Your task to perform on an android device: open app "Google Translate" (install if not already installed) Image 0: 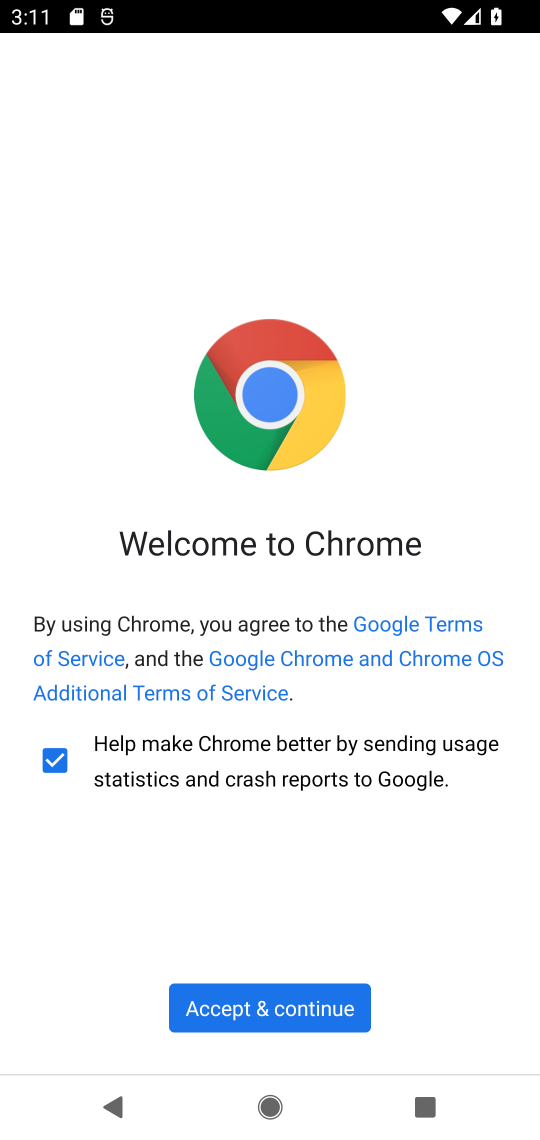
Step 0: press back button
Your task to perform on an android device: open app "Google Translate" (install if not already installed) Image 1: 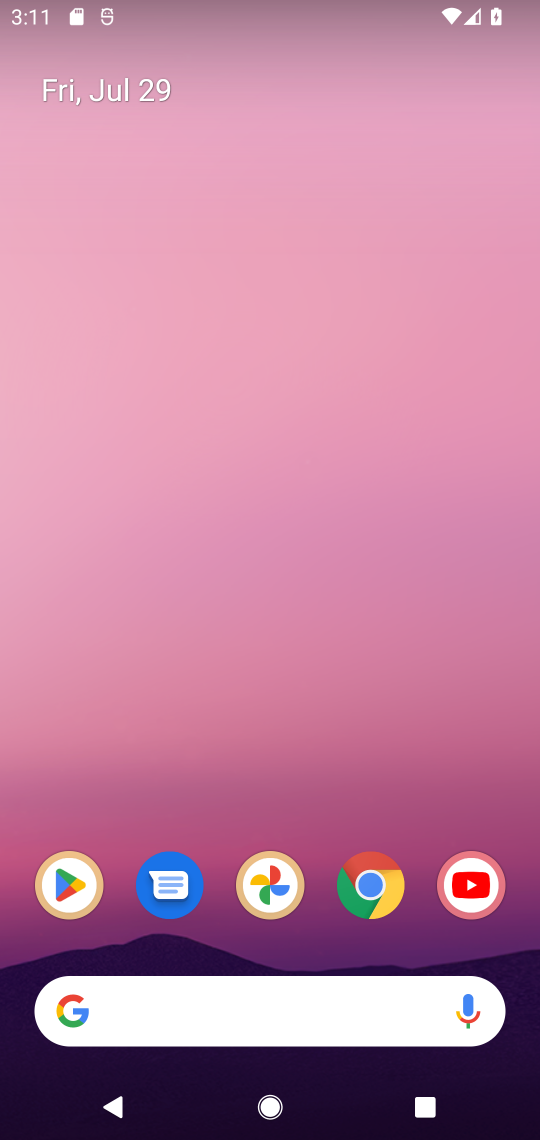
Step 1: click (85, 892)
Your task to perform on an android device: open app "Google Translate" (install if not already installed) Image 2: 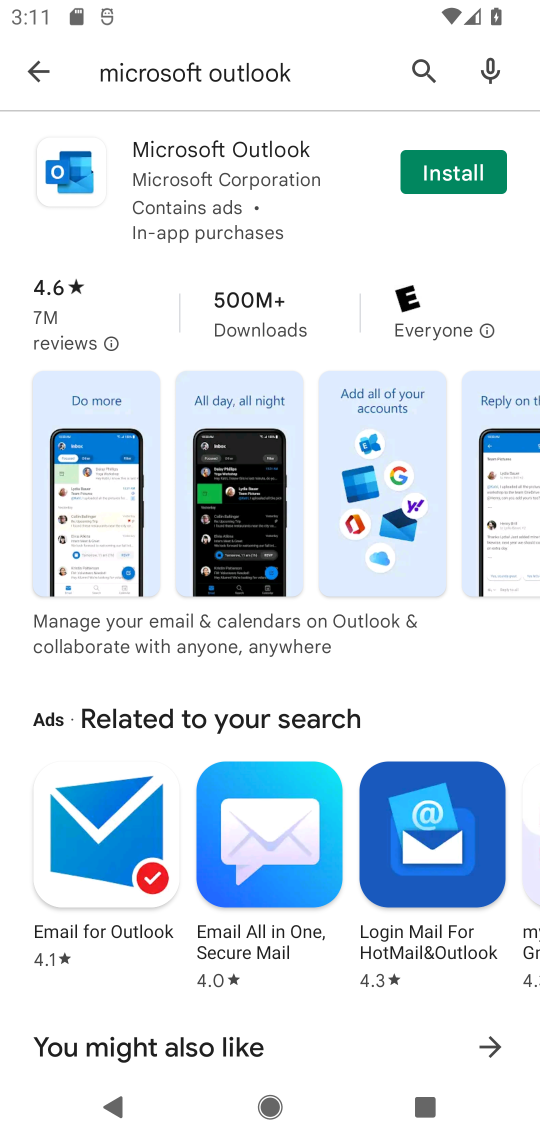
Step 2: click (430, 58)
Your task to perform on an android device: open app "Google Translate" (install if not already installed) Image 3: 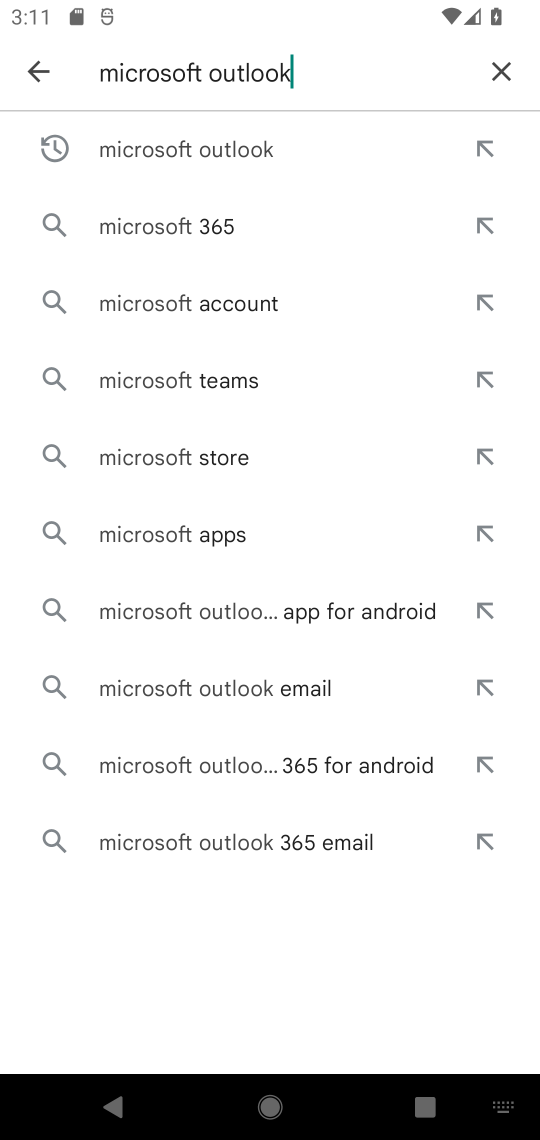
Step 3: click (482, 79)
Your task to perform on an android device: open app "Google Translate" (install if not already installed) Image 4: 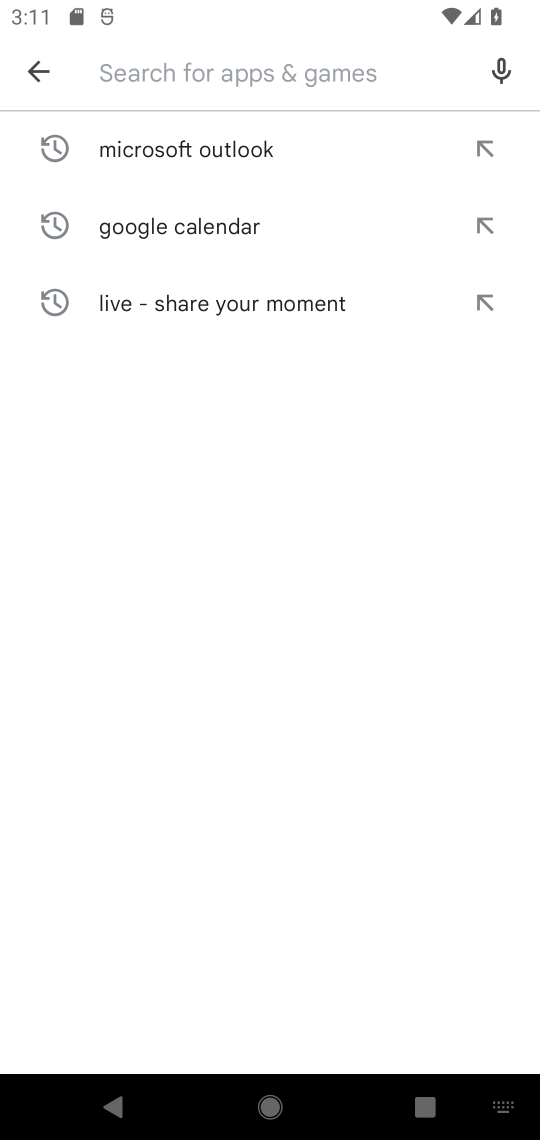
Step 4: click (495, 73)
Your task to perform on an android device: open app "Google Translate" (install if not already installed) Image 5: 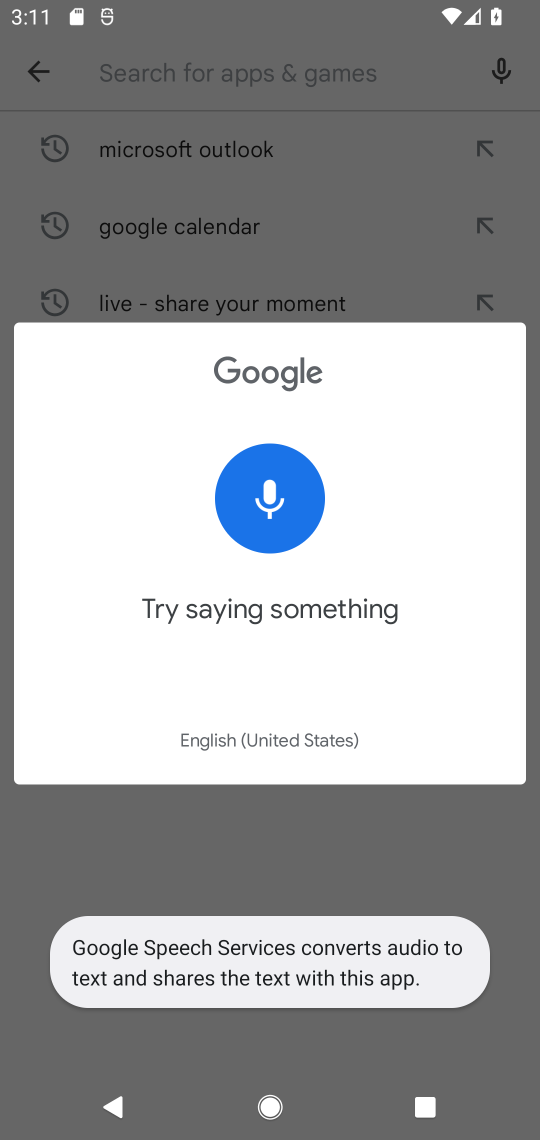
Step 5: click (195, 84)
Your task to perform on an android device: open app "Google Translate" (install if not already installed) Image 6: 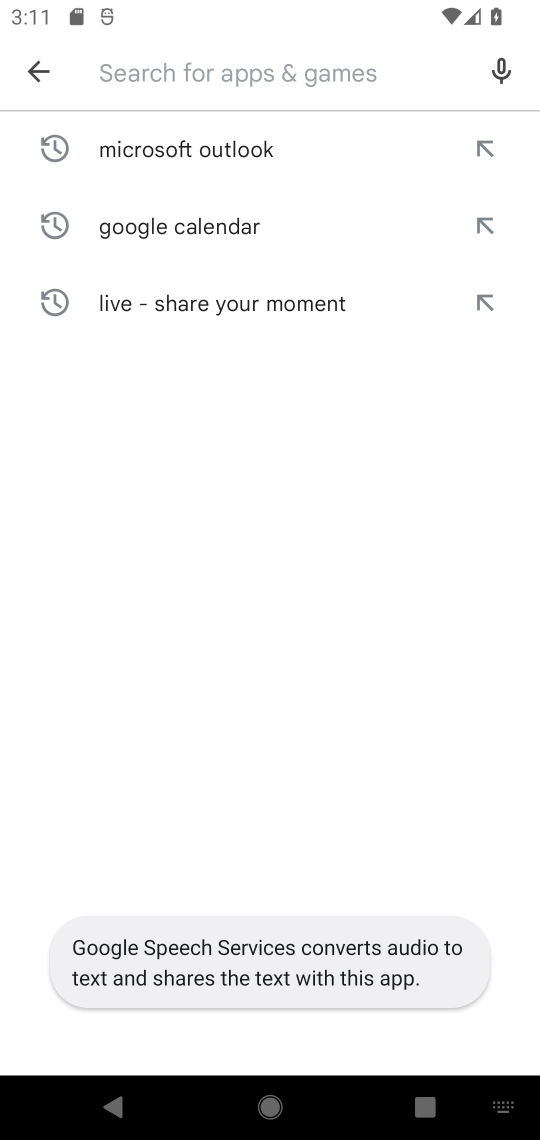
Step 6: click (195, 84)
Your task to perform on an android device: open app "Google Translate" (install if not already installed) Image 7: 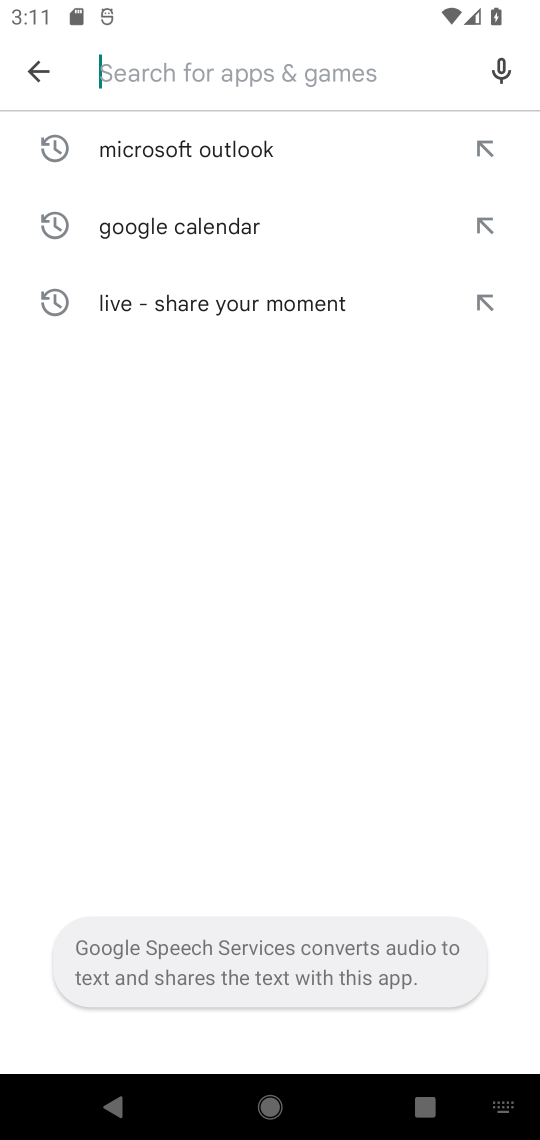
Step 7: click (195, 84)
Your task to perform on an android device: open app "Google Translate" (install if not already installed) Image 8: 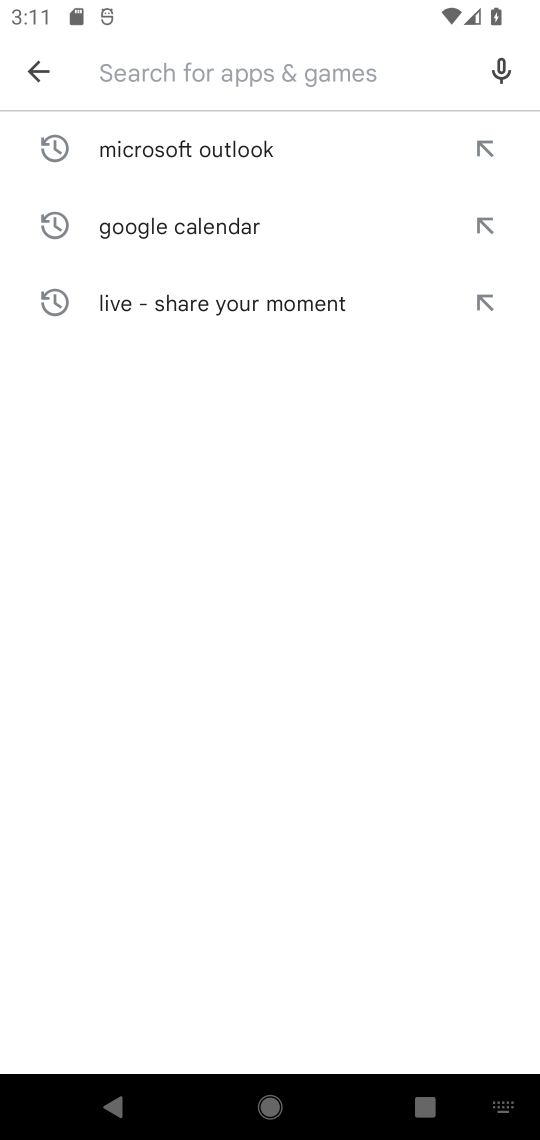
Step 8: type "Google Translate"
Your task to perform on an android device: open app "Google Translate" (install if not already installed) Image 9: 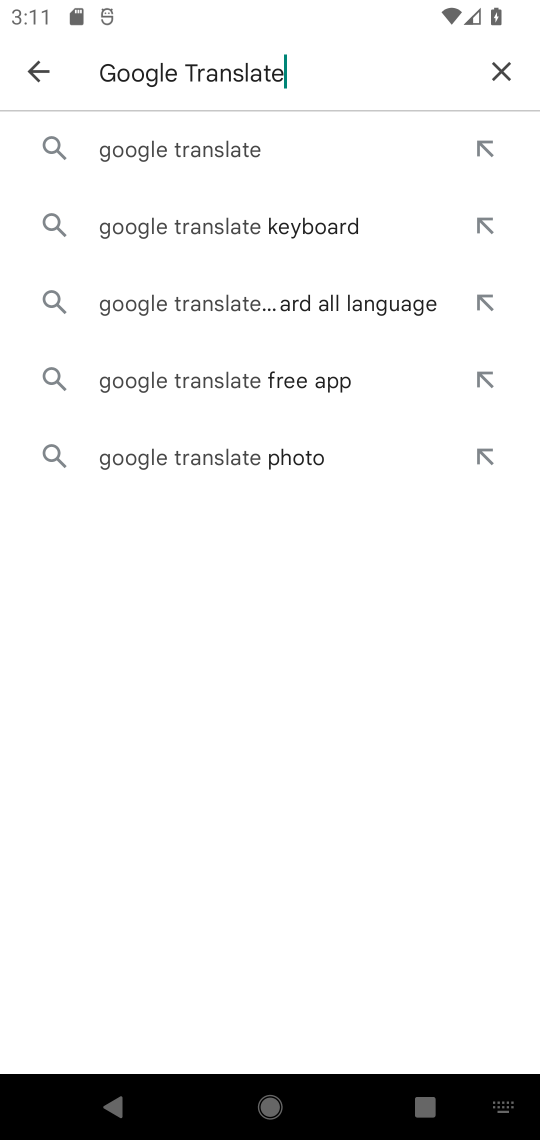
Step 9: click (196, 148)
Your task to perform on an android device: open app "Google Translate" (install if not already installed) Image 10: 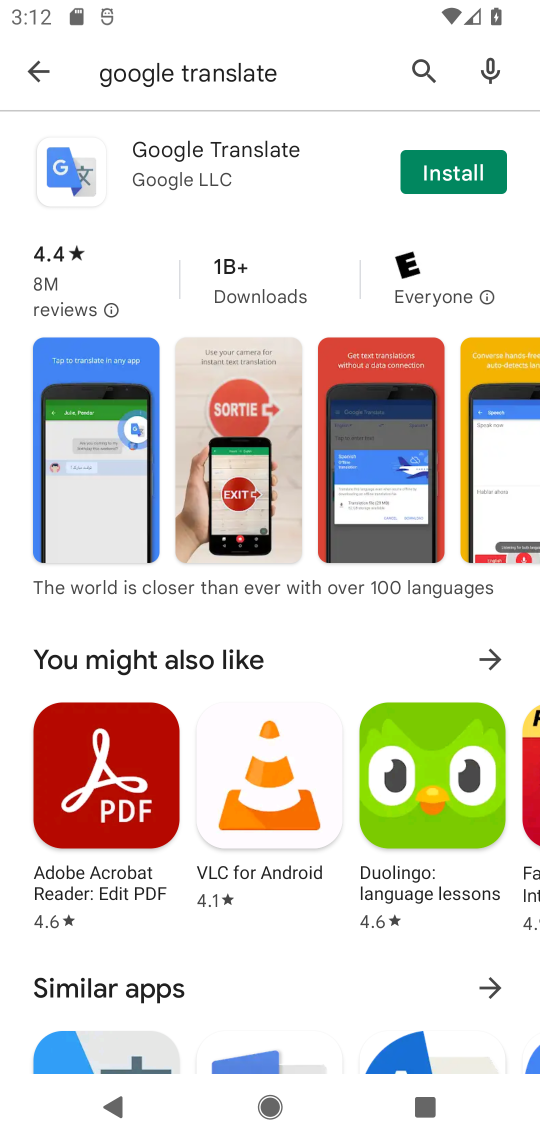
Step 10: click (465, 182)
Your task to perform on an android device: open app "Google Translate" (install if not already installed) Image 11: 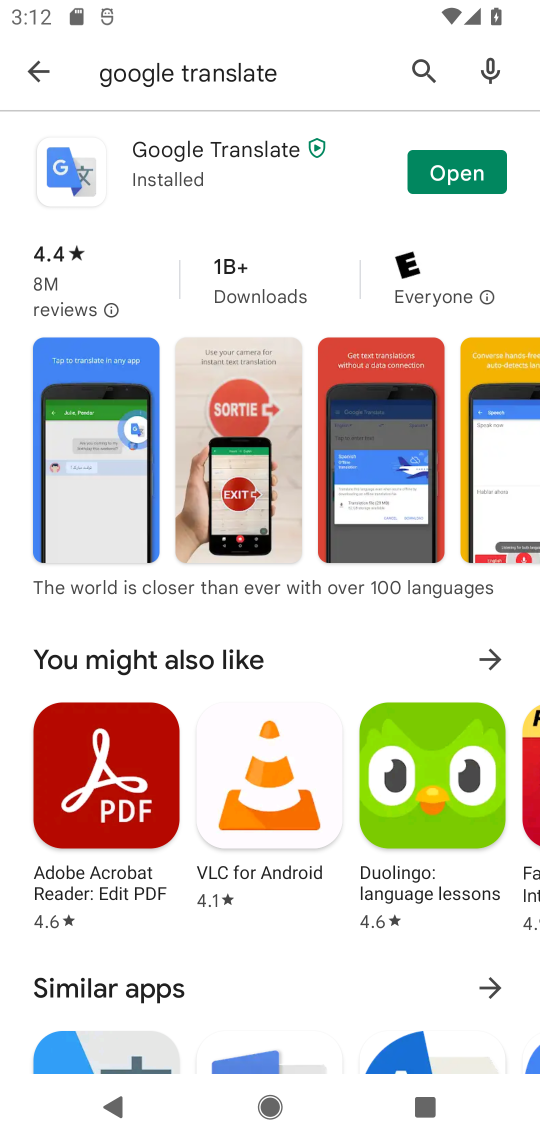
Step 11: click (465, 182)
Your task to perform on an android device: open app "Google Translate" (install if not already installed) Image 12: 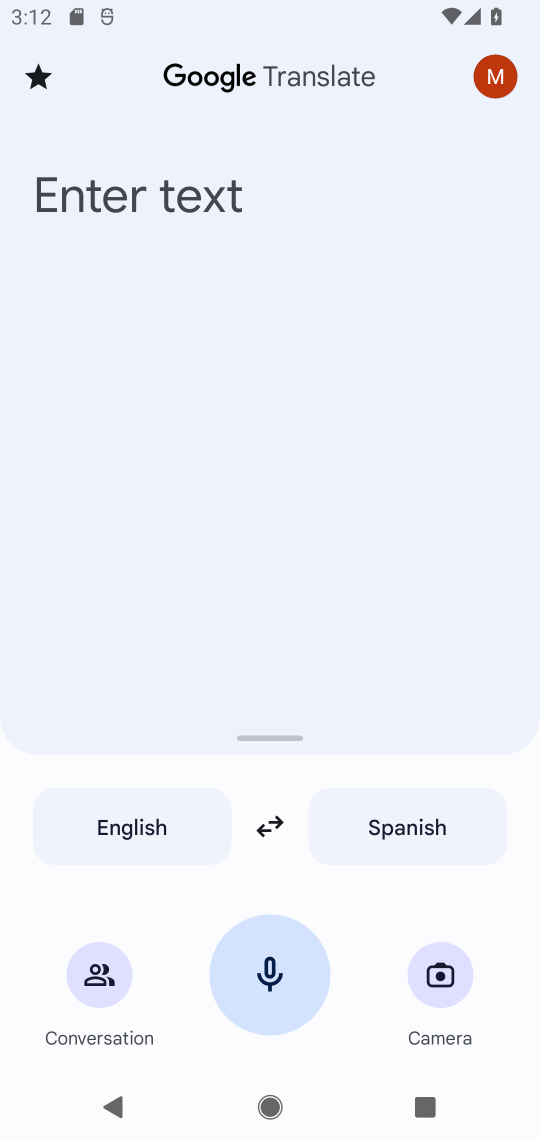
Step 12: task complete